Your task to perform on an android device: toggle sleep mode Image 0: 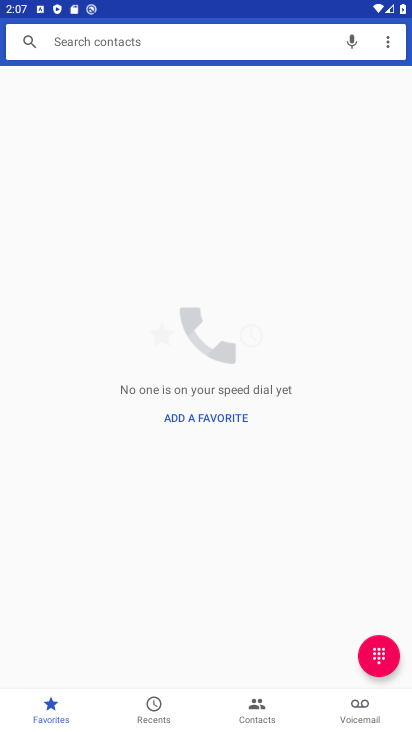
Step 0: press home button
Your task to perform on an android device: toggle sleep mode Image 1: 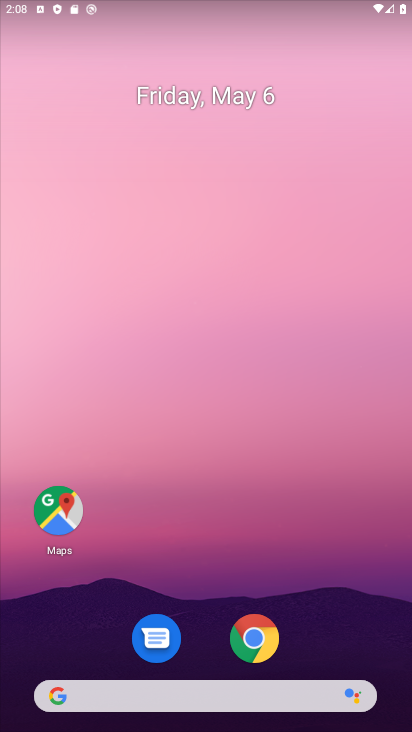
Step 1: drag from (295, 399) to (327, 5)
Your task to perform on an android device: toggle sleep mode Image 2: 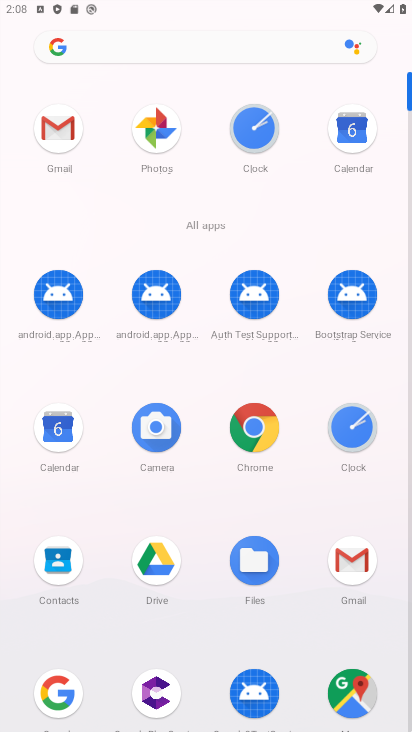
Step 2: drag from (271, 550) to (274, 14)
Your task to perform on an android device: toggle sleep mode Image 3: 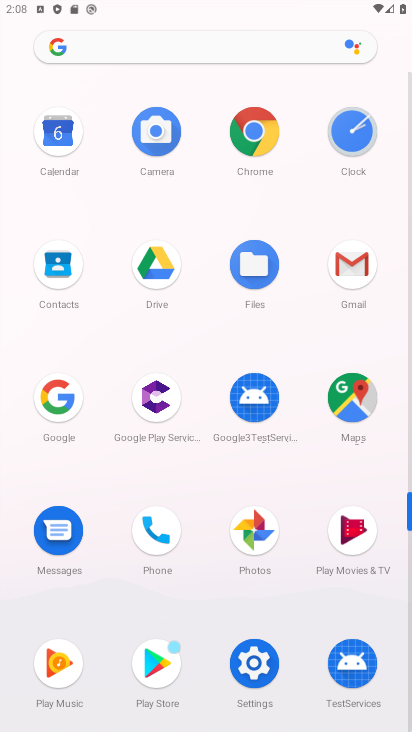
Step 3: click (241, 665)
Your task to perform on an android device: toggle sleep mode Image 4: 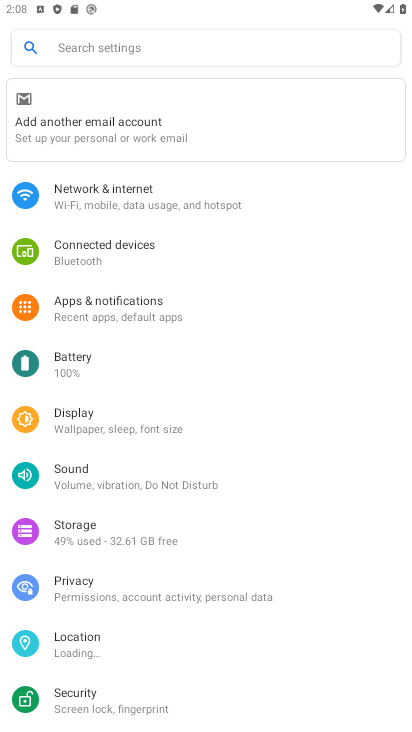
Step 4: click (103, 427)
Your task to perform on an android device: toggle sleep mode Image 5: 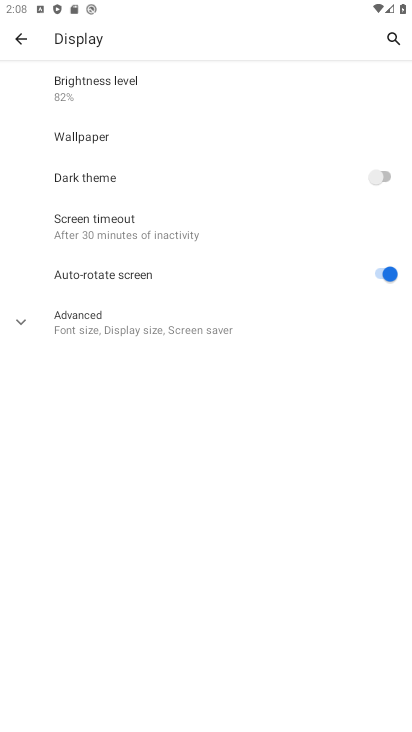
Step 5: task complete